Your task to perform on an android device: toggle sleep mode Image 0: 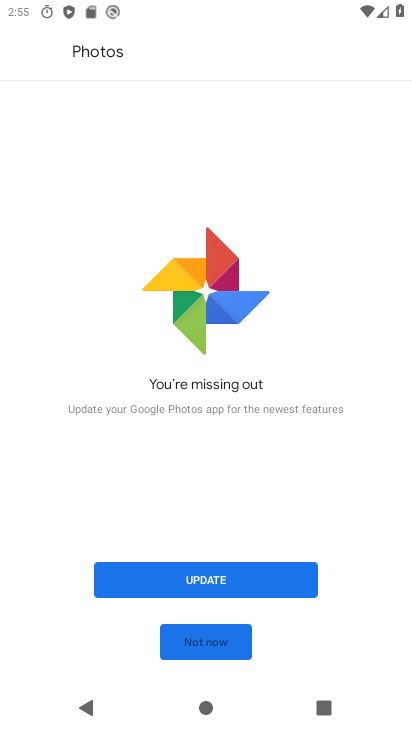
Step 0: press home button
Your task to perform on an android device: toggle sleep mode Image 1: 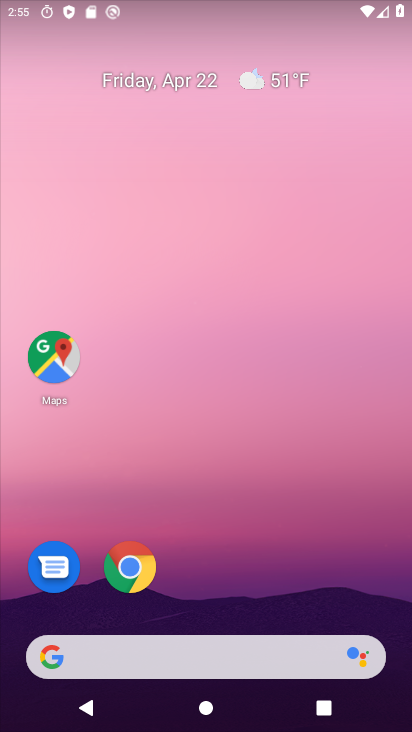
Step 1: drag from (249, 383) to (207, 6)
Your task to perform on an android device: toggle sleep mode Image 2: 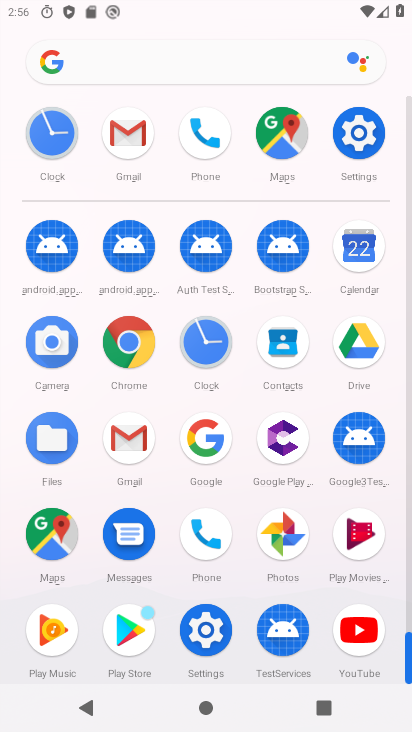
Step 2: click (341, 139)
Your task to perform on an android device: toggle sleep mode Image 3: 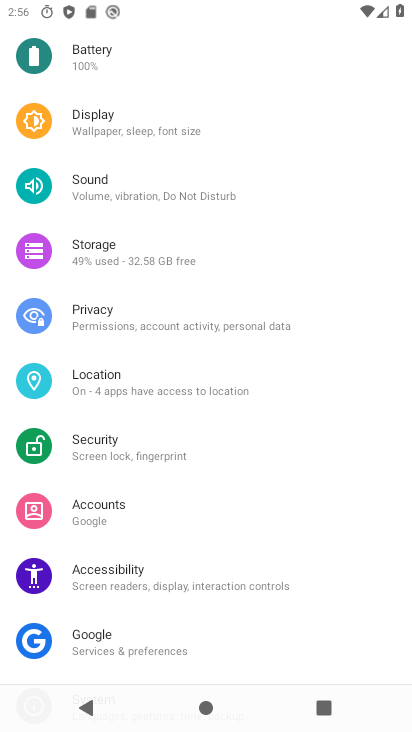
Step 3: click (159, 125)
Your task to perform on an android device: toggle sleep mode Image 4: 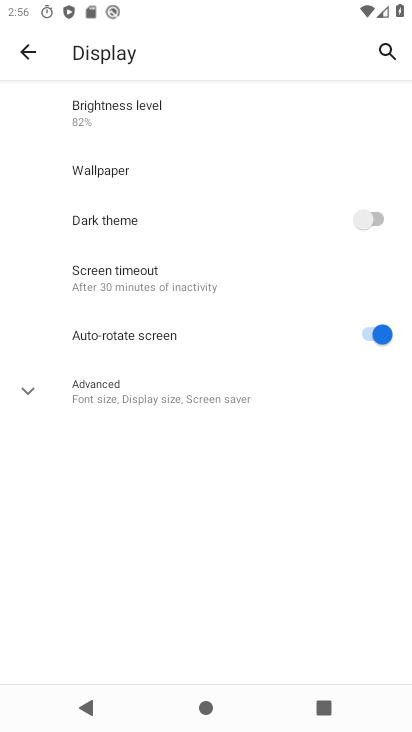
Step 4: task complete